Your task to perform on an android device: turn on data saver in the chrome app Image 0: 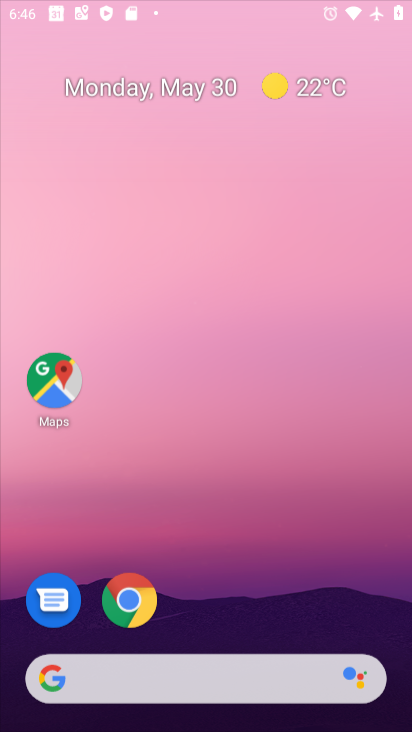
Step 0: press home button
Your task to perform on an android device: turn on data saver in the chrome app Image 1: 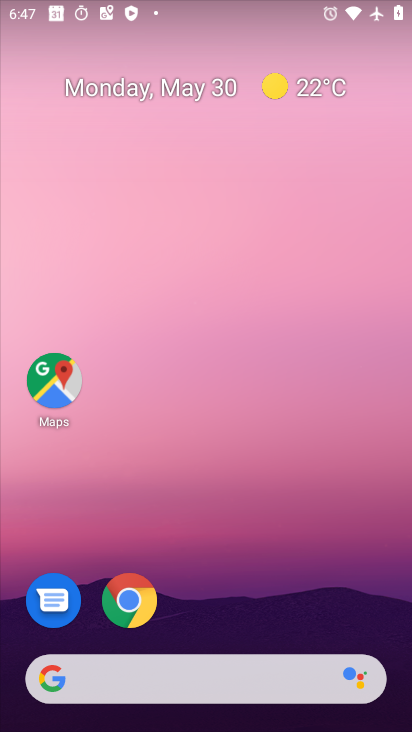
Step 1: click (132, 598)
Your task to perform on an android device: turn on data saver in the chrome app Image 2: 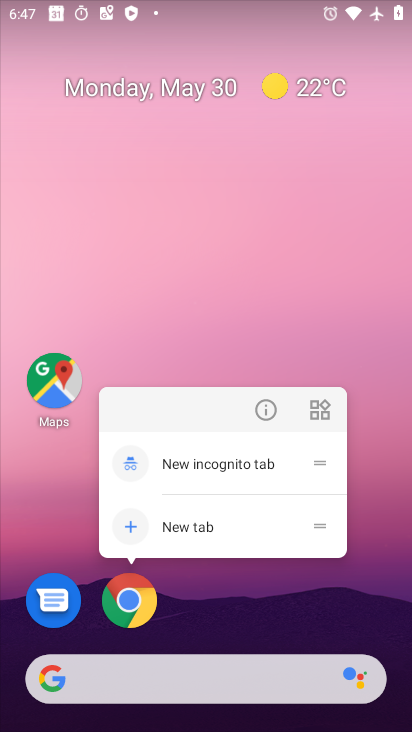
Step 2: click (145, 605)
Your task to perform on an android device: turn on data saver in the chrome app Image 3: 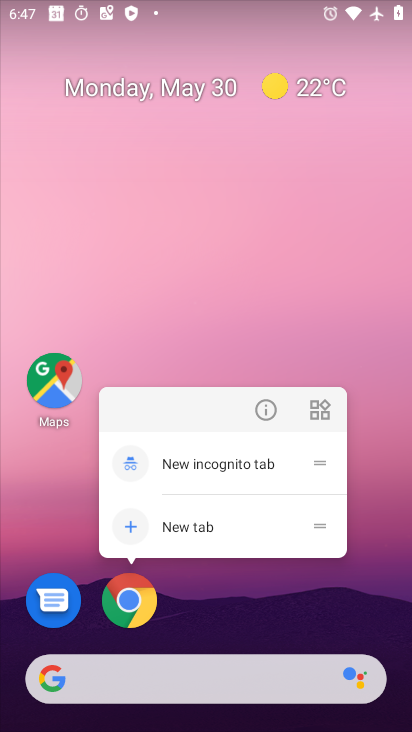
Step 3: click (334, 611)
Your task to perform on an android device: turn on data saver in the chrome app Image 4: 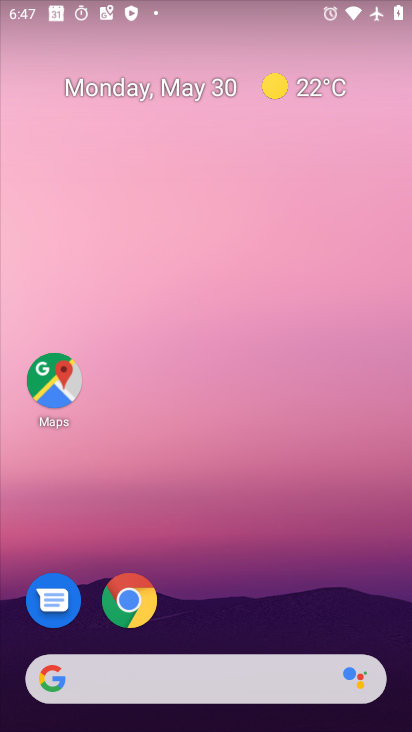
Step 4: drag from (320, 615) to (267, 2)
Your task to perform on an android device: turn on data saver in the chrome app Image 5: 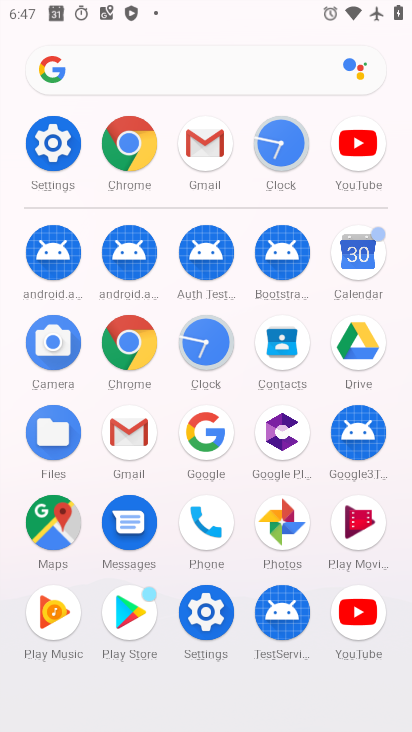
Step 5: click (133, 157)
Your task to perform on an android device: turn on data saver in the chrome app Image 6: 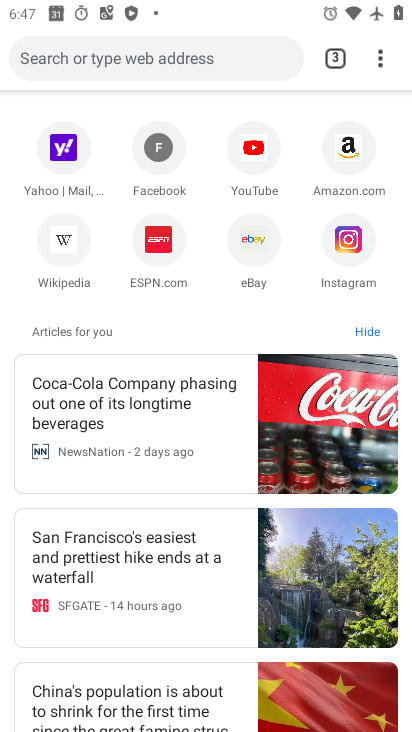
Step 6: drag from (383, 67) to (178, 501)
Your task to perform on an android device: turn on data saver in the chrome app Image 7: 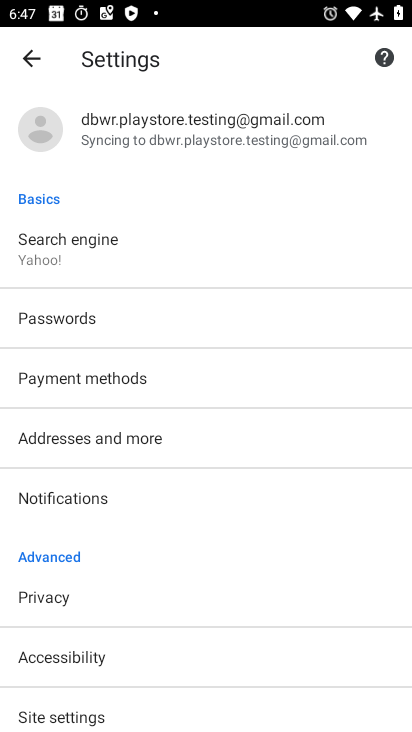
Step 7: drag from (203, 653) to (171, 281)
Your task to perform on an android device: turn on data saver in the chrome app Image 8: 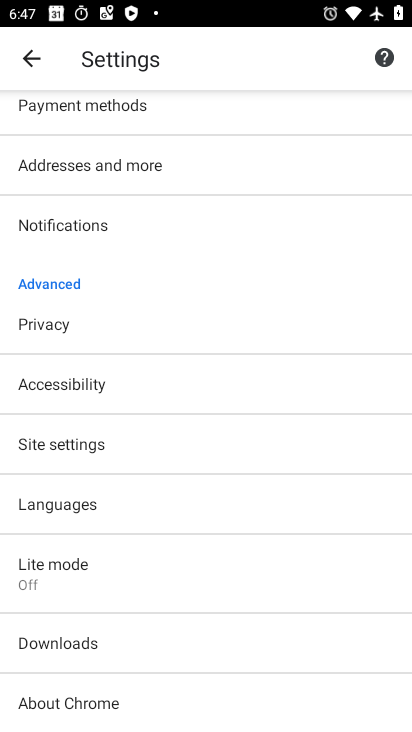
Step 8: click (48, 576)
Your task to perform on an android device: turn on data saver in the chrome app Image 9: 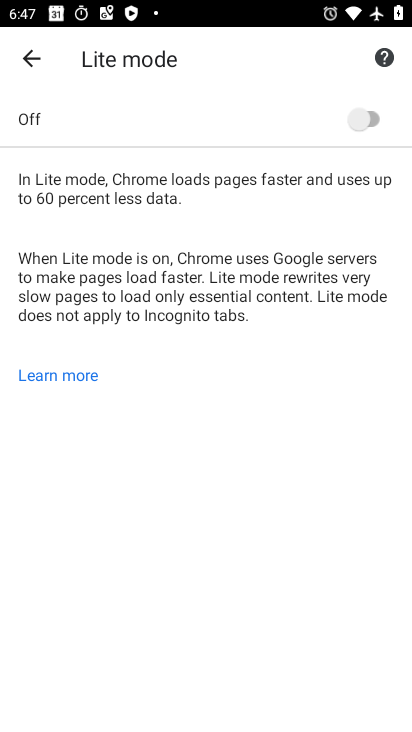
Step 9: click (372, 119)
Your task to perform on an android device: turn on data saver in the chrome app Image 10: 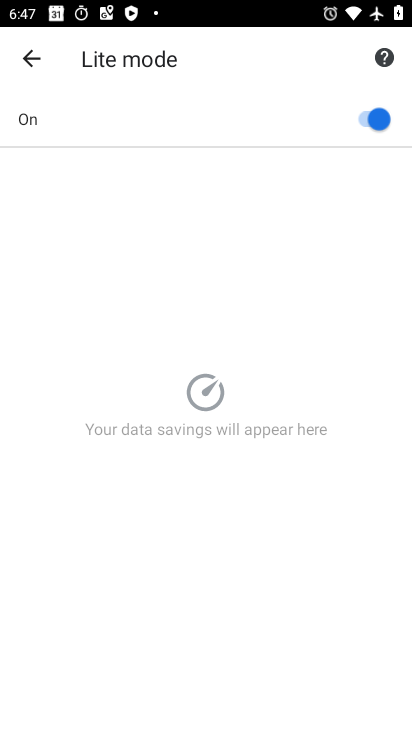
Step 10: task complete